Your task to perform on an android device: Go to location settings Image 0: 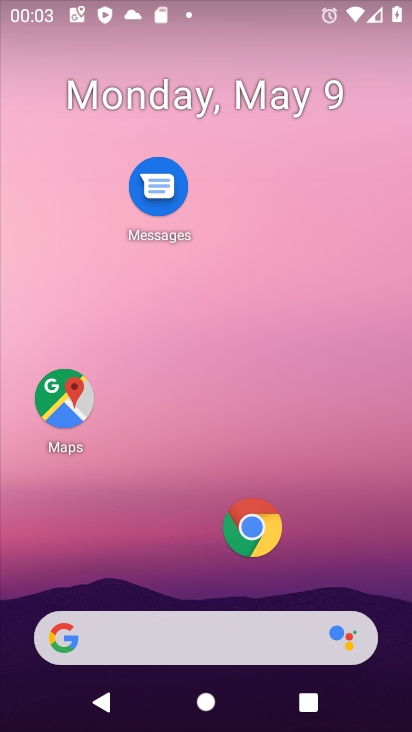
Step 0: drag from (172, 537) to (209, 51)
Your task to perform on an android device: Go to location settings Image 1: 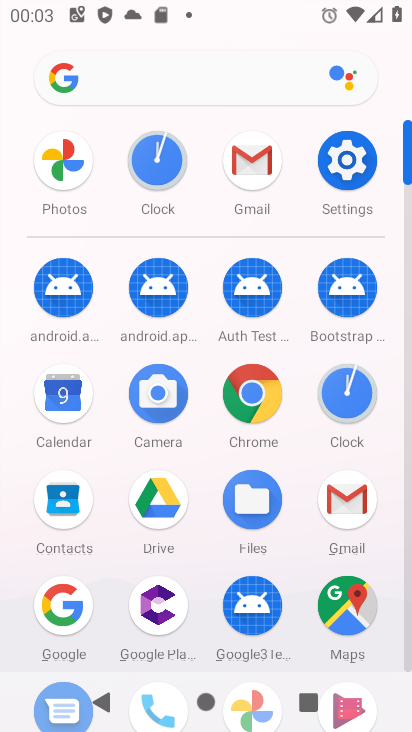
Step 1: click (337, 164)
Your task to perform on an android device: Go to location settings Image 2: 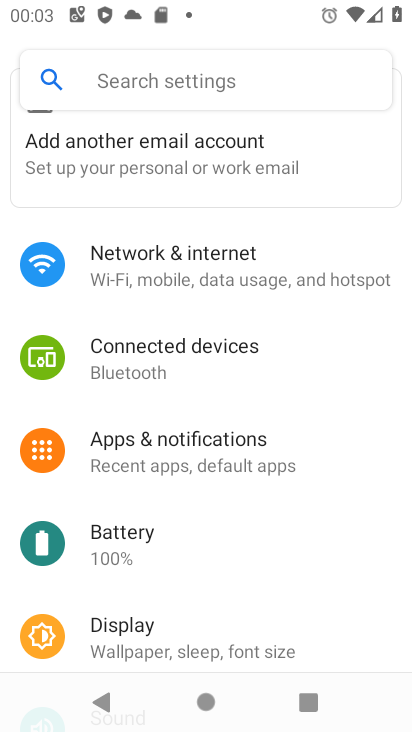
Step 2: click (199, 268)
Your task to perform on an android device: Go to location settings Image 3: 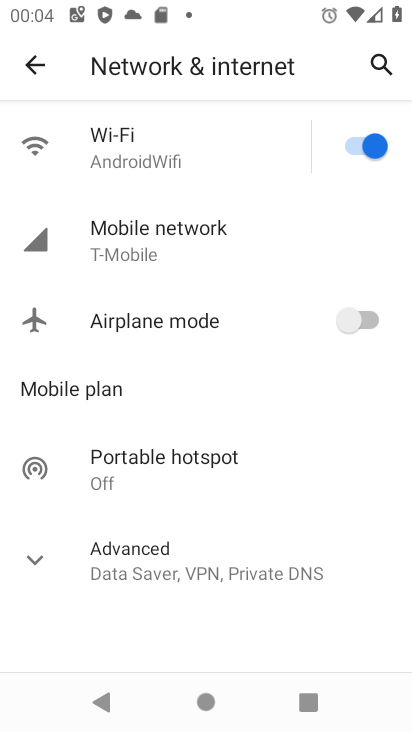
Step 3: press home button
Your task to perform on an android device: Go to location settings Image 4: 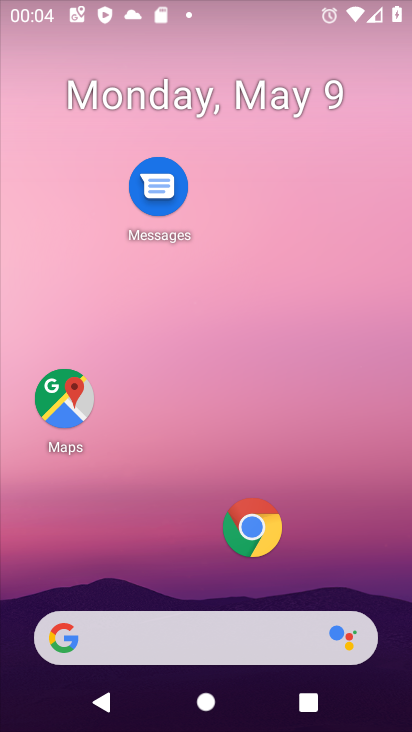
Step 4: drag from (174, 495) to (197, 10)
Your task to perform on an android device: Go to location settings Image 5: 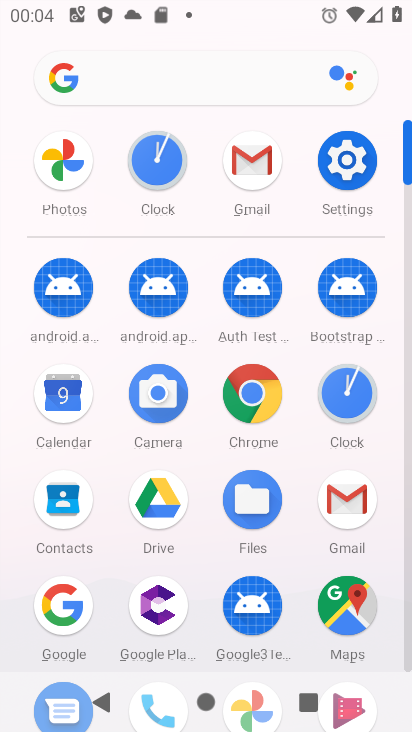
Step 5: click (342, 162)
Your task to perform on an android device: Go to location settings Image 6: 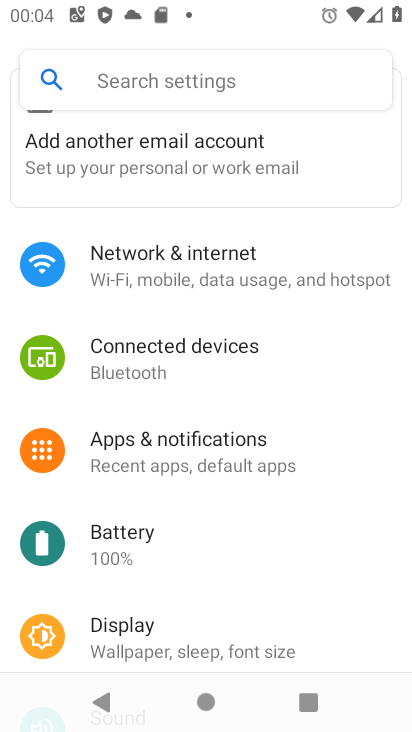
Step 6: drag from (242, 558) to (224, 95)
Your task to perform on an android device: Go to location settings Image 7: 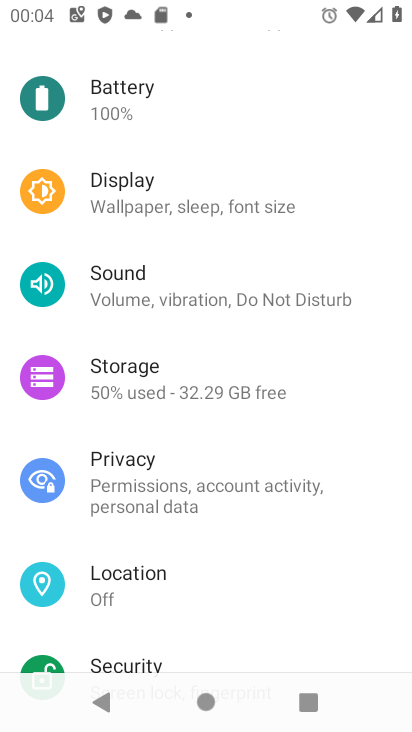
Step 7: click (168, 581)
Your task to perform on an android device: Go to location settings Image 8: 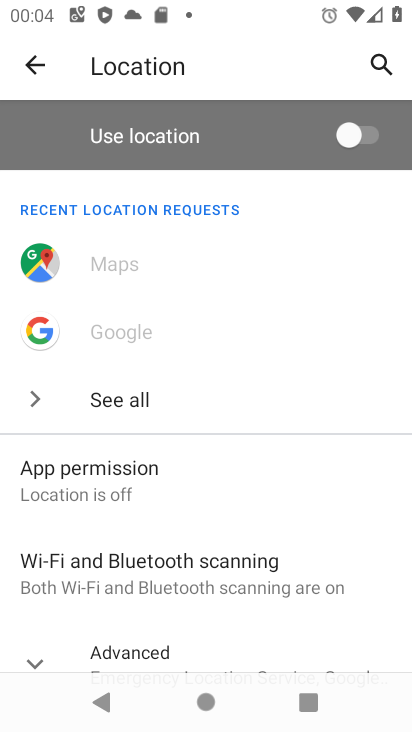
Step 8: task complete